Your task to perform on an android device: Open wifi settings Image 0: 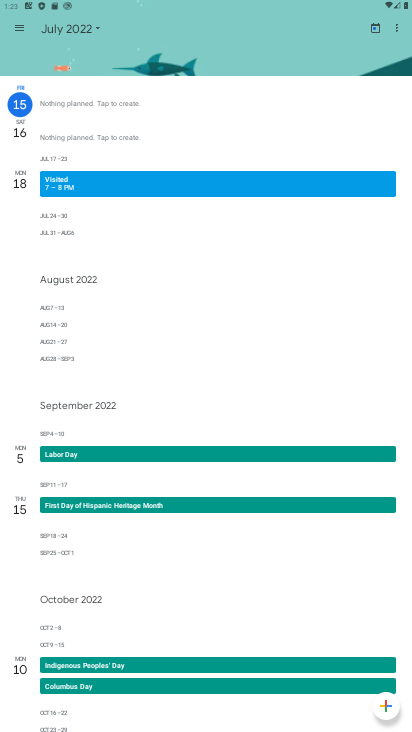
Step 0: press home button
Your task to perform on an android device: Open wifi settings Image 1: 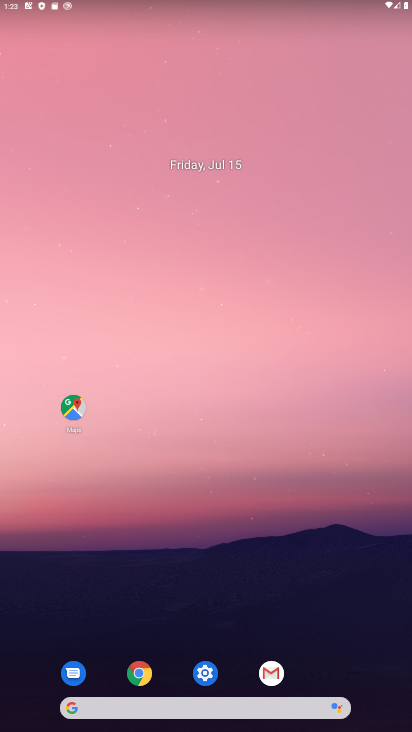
Step 1: click (207, 664)
Your task to perform on an android device: Open wifi settings Image 2: 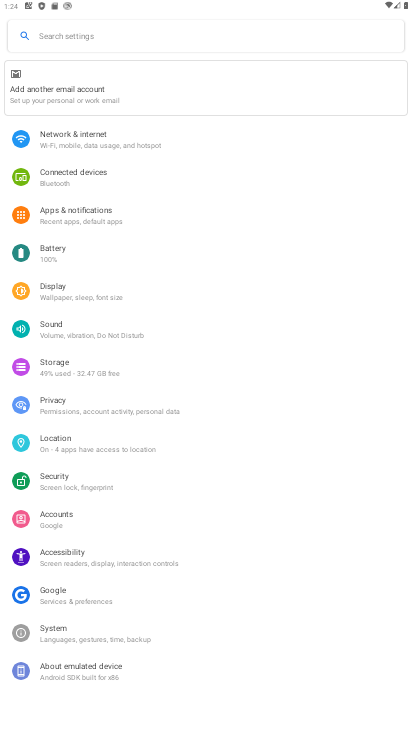
Step 2: click (103, 142)
Your task to perform on an android device: Open wifi settings Image 3: 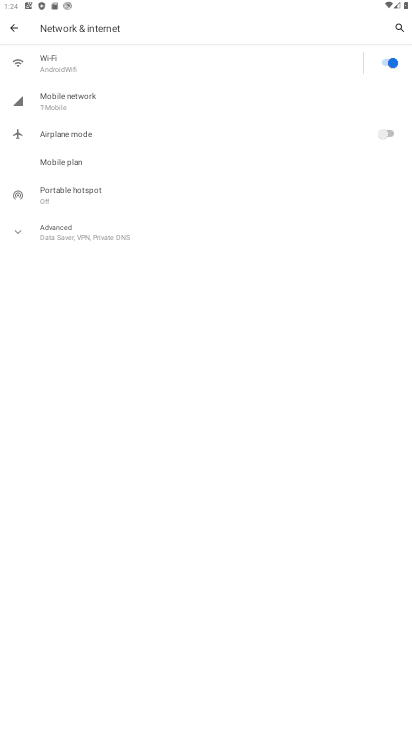
Step 3: click (88, 68)
Your task to perform on an android device: Open wifi settings Image 4: 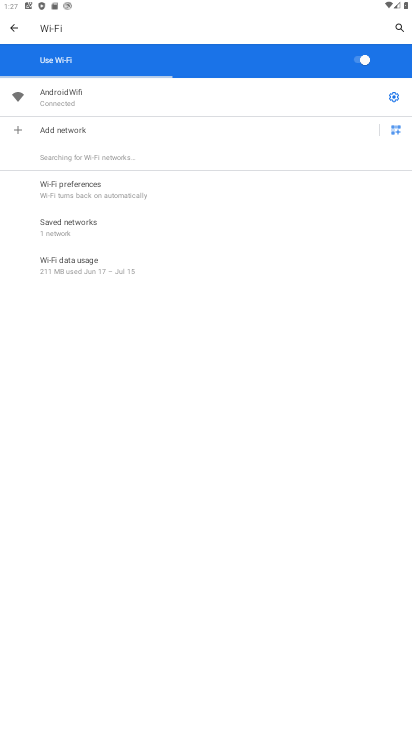
Step 4: task complete